Your task to perform on an android device: Go to privacy settings Image 0: 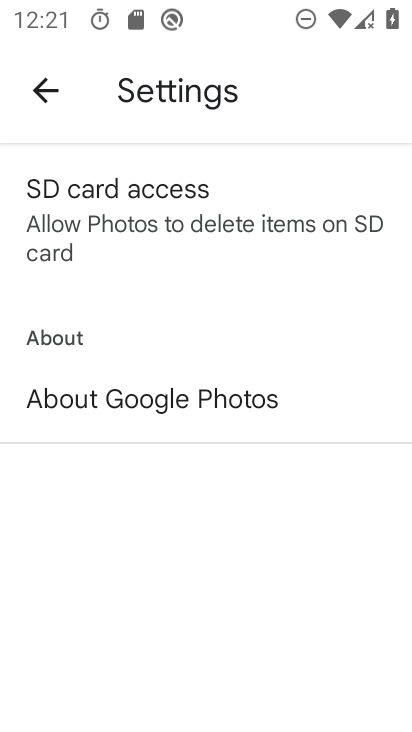
Step 0: press home button
Your task to perform on an android device: Go to privacy settings Image 1: 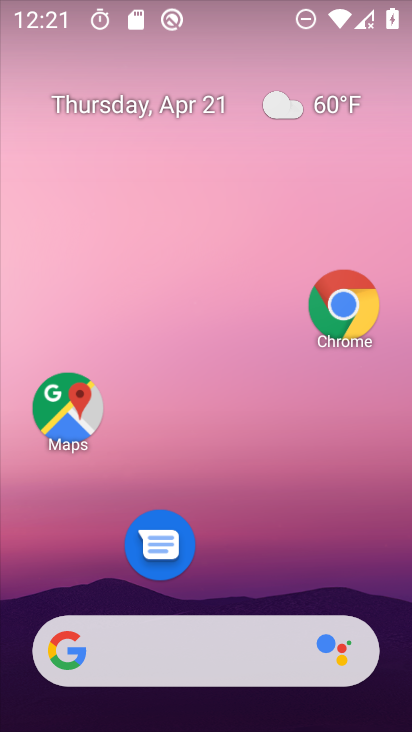
Step 1: drag from (239, 490) to (291, 122)
Your task to perform on an android device: Go to privacy settings Image 2: 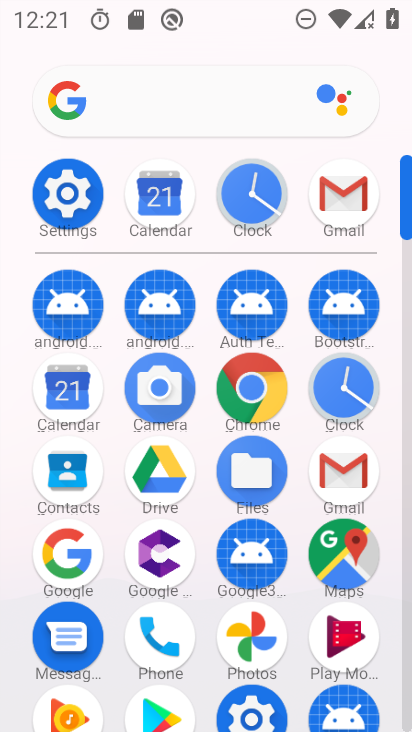
Step 2: click (88, 217)
Your task to perform on an android device: Go to privacy settings Image 3: 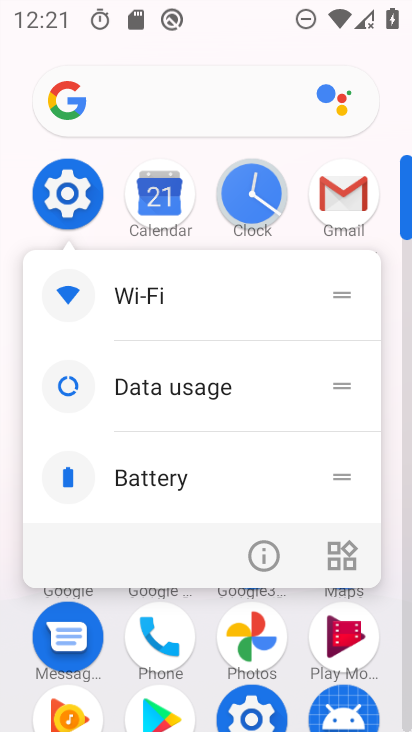
Step 3: click (88, 217)
Your task to perform on an android device: Go to privacy settings Image 4: 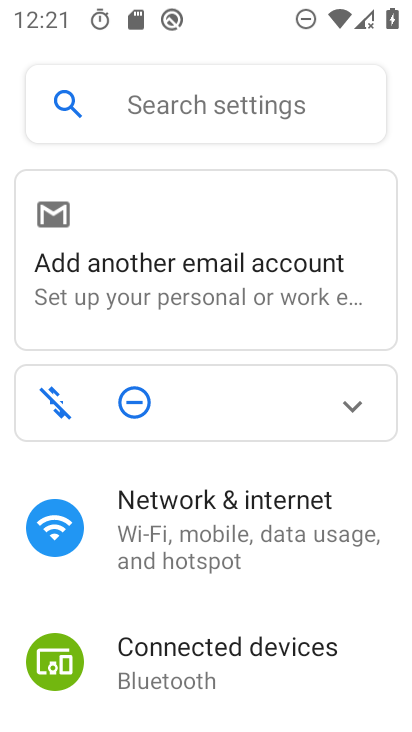
Step 4: drag from (310, 576) to (339, 179)
Your task to perform on an android device: Go to privacy settings Image 5: 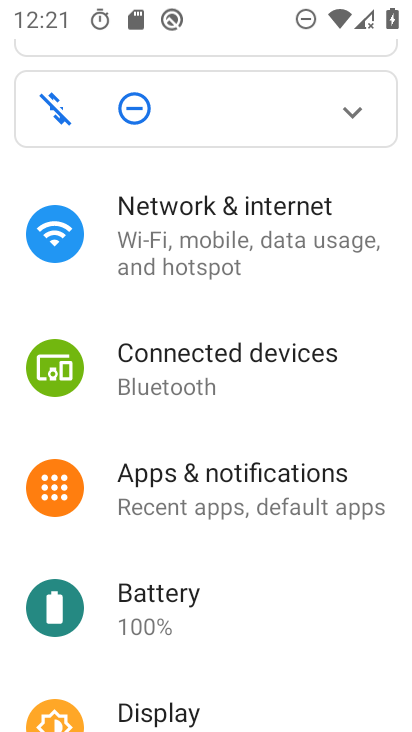
Step 5: drag from (280, 578) to (336, 221)
Your task to perform on an android device: Go to privacy settings Image 6: 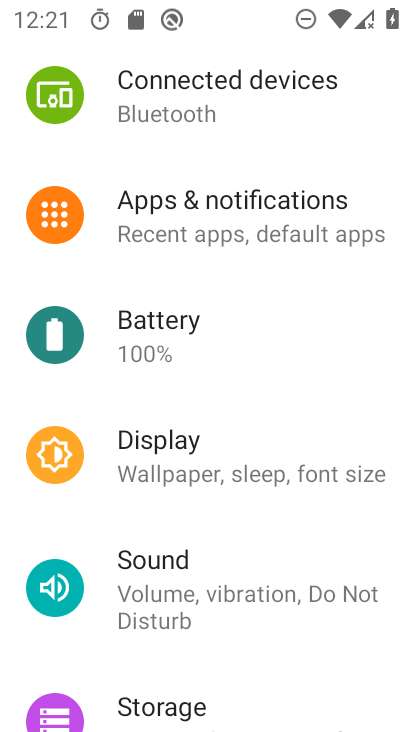
Step 6: drag from (256, 568) to (287, 189)
Your task to perform on an android device: Go to privacy settings Image 7: 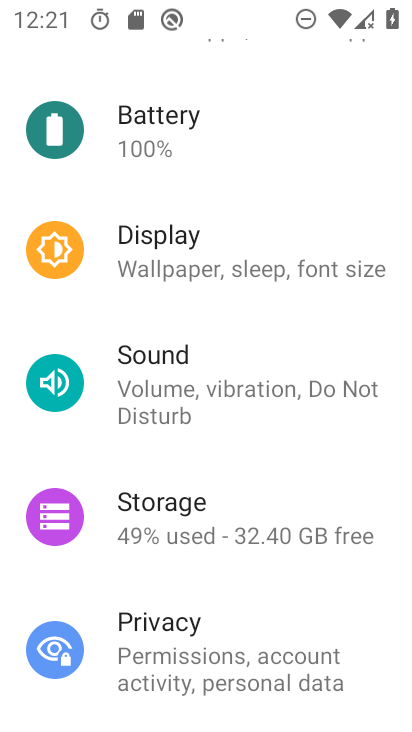
Step 7: drag from (197, 538) to (223, 227)
Your task to perform on an android device: Go to privacy settings Image 8: 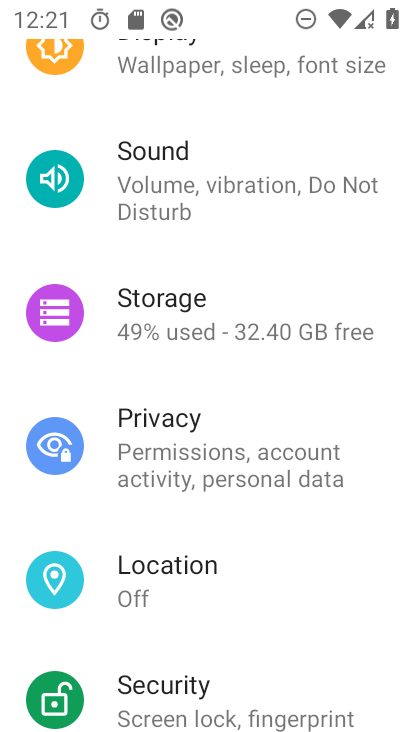
Step 8: click (218, 473)
Your task to perform on an android device: Go to privacy settings Image 9: 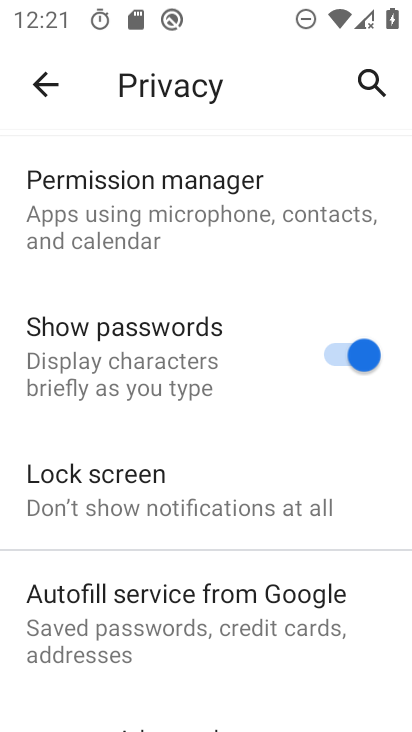
Step 9: task complete